Your task to perform on an android device: turn on showing notifications on the lock screen Image 0: 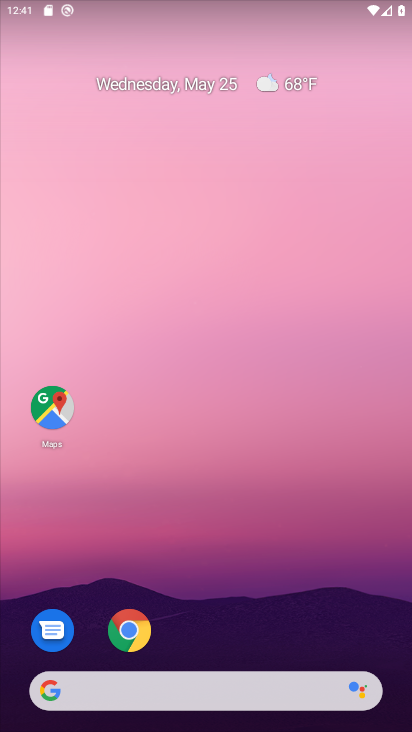
Step 0: drag from (216, 543) to (265, 16)
Your task to perform on an android device: turn on showing notifications on the lock screen Image 1: 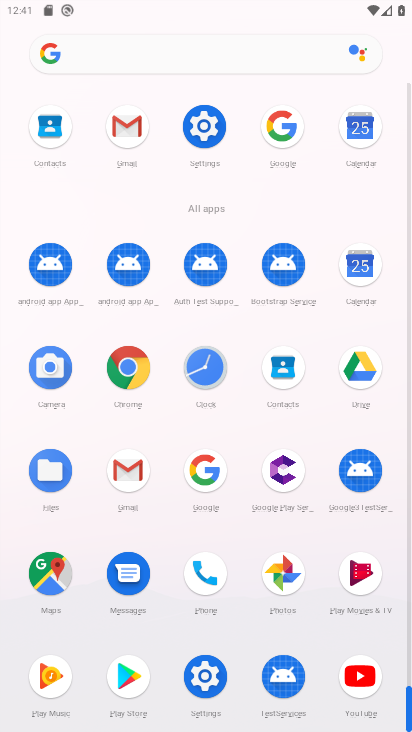
Step 1: click (204, 244)
Your task to perform on an android device: turn on showing notifications on the lock screen Image 2: 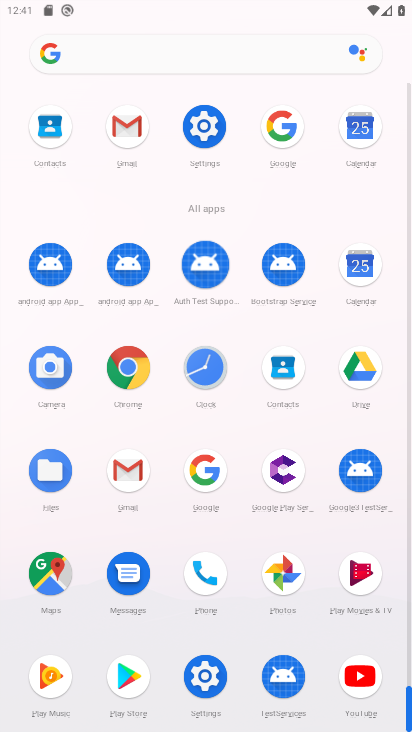
Step 2: click (204, 128)
Your task to perform on an android device: turn on showing notifications on the lock screen Image 3: 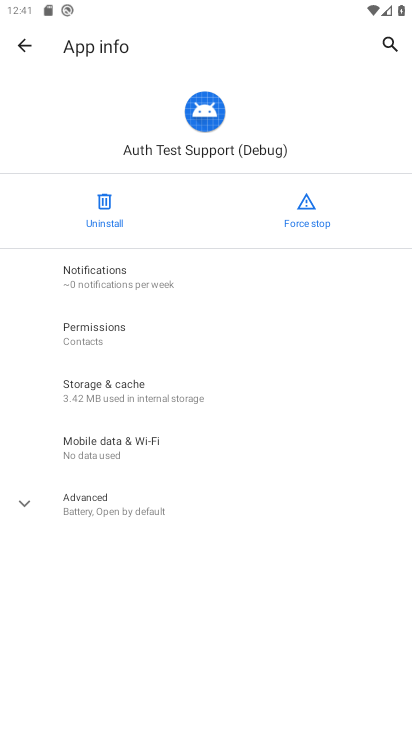
Step 3: click (12, 25)
Your task to perform on an android device: turn on showing notifications on the lock screen Image 4: 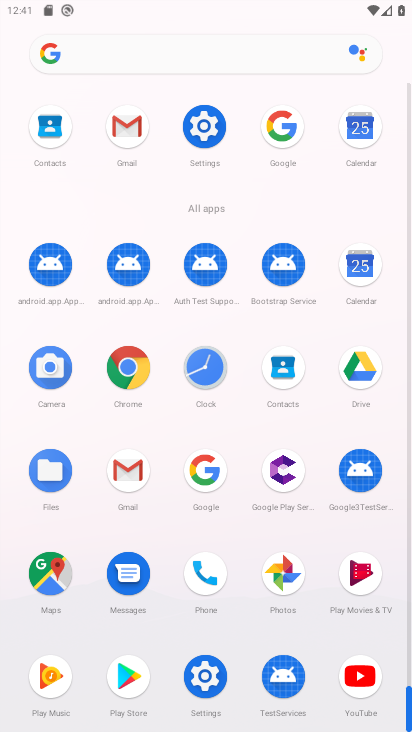
Step 4: click (211, 124)
Your task to perform on an android device: turn on showing notifications on the lock screen Image 5: 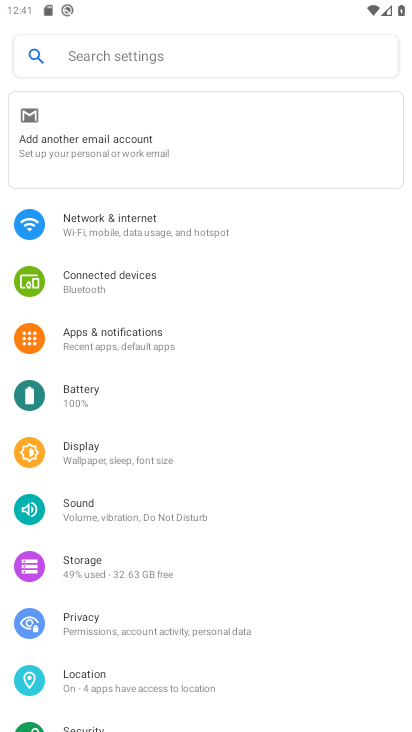
Step 5: click (164, 338)
Your task to perform on an android device: turn on showing notifications on the lock screen Image 6: 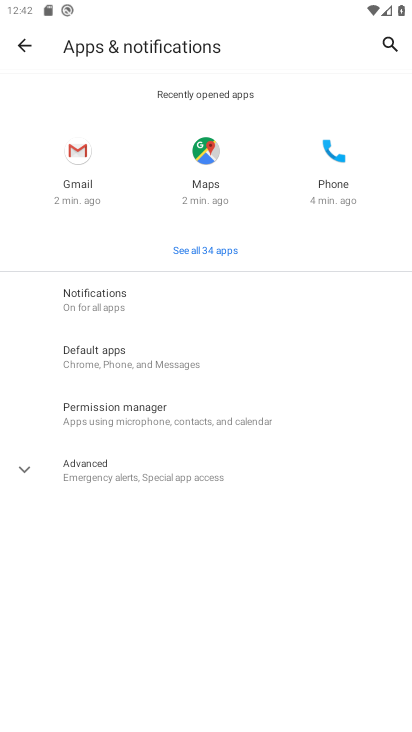
Step 6: click (146, 305)
Your task to perform on an android device: turn on showing notifications on the lock screen Image 7: 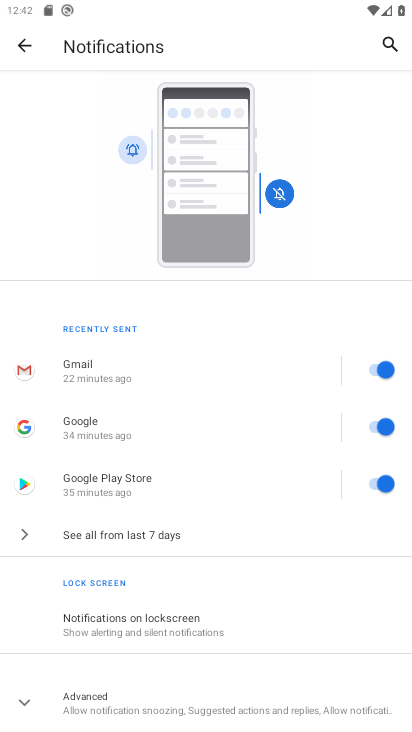
Step 7: drag from (194, 659) to (225, 466)
Your task to perform on an android device: turn on showing notifications on the lock screen Image 8: 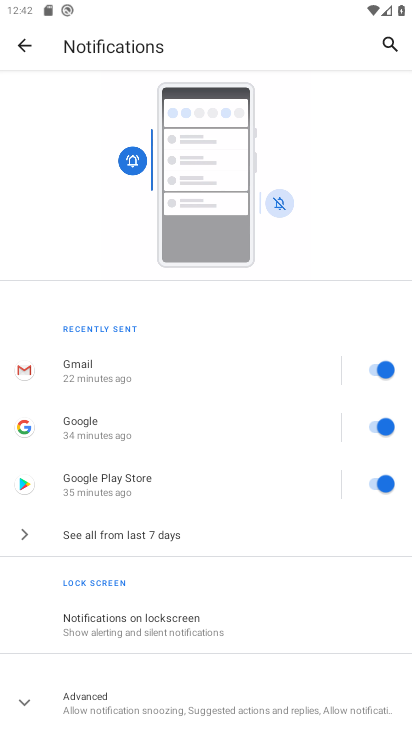
Step 8: click (158, 686)
Your task to perform on an android device: turn on showing notifications on the lock screen Image 9: 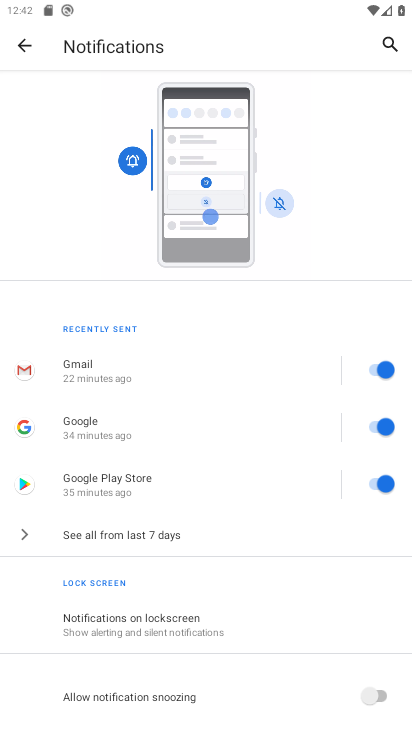
Step 9: drag from (171, 626) to (215, 360)
Your task to perform on an android device: turn on showing notifications on the lock screen Image 10: 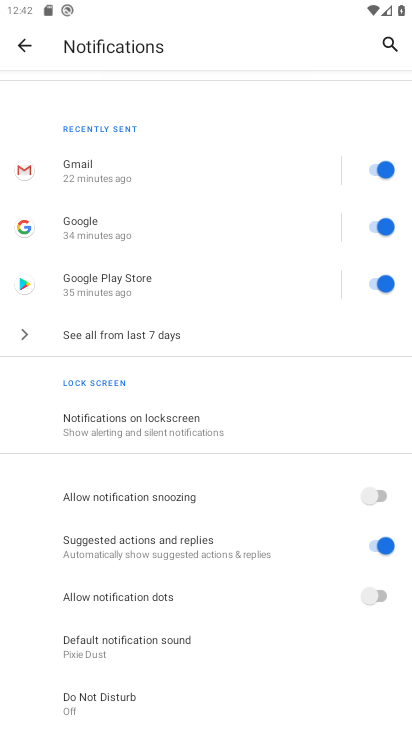
Step 10: click (244, 429)
Your task to perform on an android device: turn on showing notifications on the lock screen Image 11: 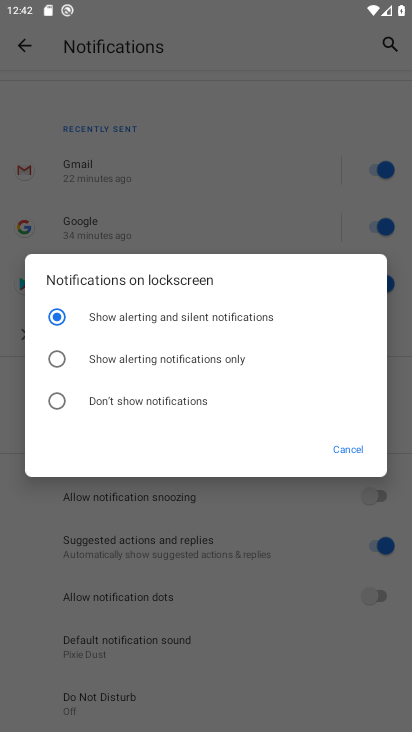
Step 11: task complete